Your task to perform on an android device: toggle data saver in the chrome app Image 0: 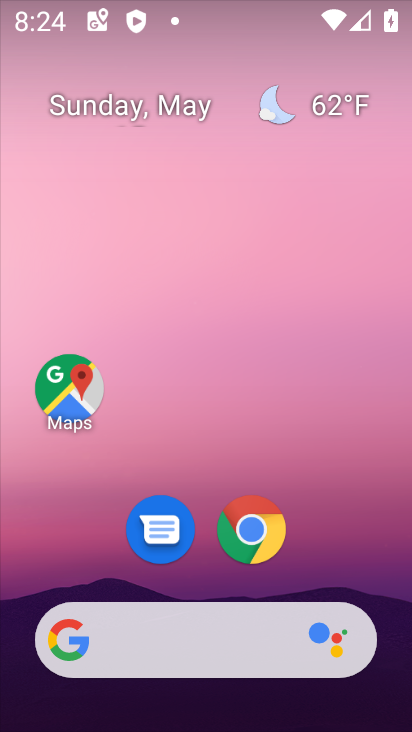
Step 0: drag from (350, 564) to (296, 171)
Your task to perform on an android device: toggle data saver in the chrome app Image 1: 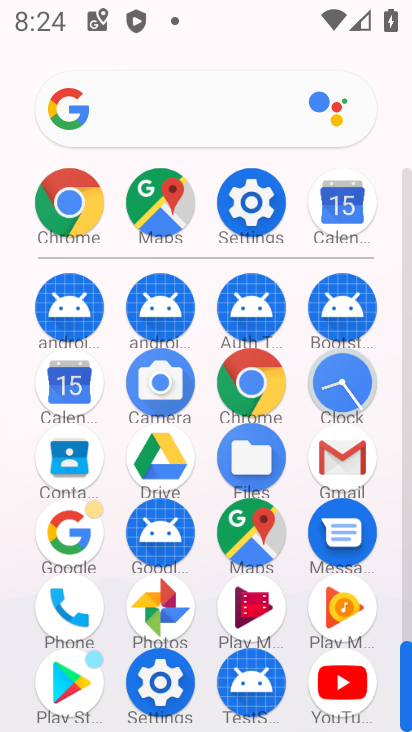
Step 1: click (260, 376)
Your task to perform on an android device: toggle data saver in the chrome app Image 2: 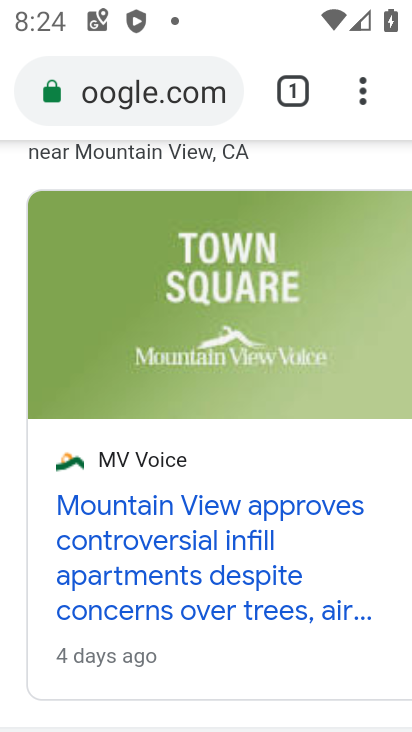
Step 2: drag from (369, 118) to (176, 515)
Your task to perform on an android device: toggle data saver in the chrome app Image 3: 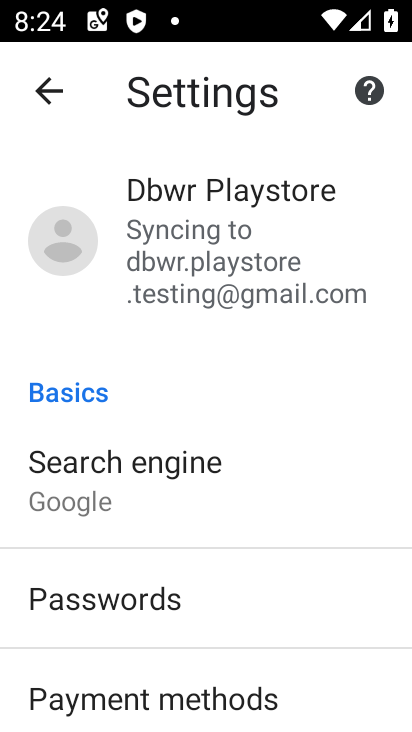
Step 3: drag from (210, 618) to (307, 145)
Your task to perform on an android device: toggle data saver in the chrome app Image 4: 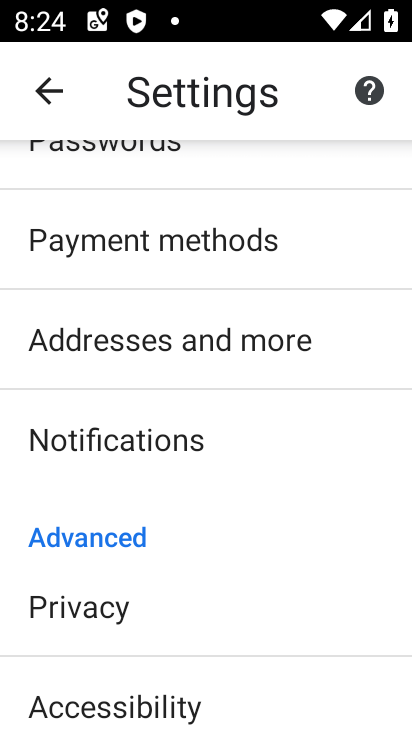
Step 4: drag from (268, 644) to (337, 297)
Your task to perform on an android device: toggle data saver in the chrome app Image 5: 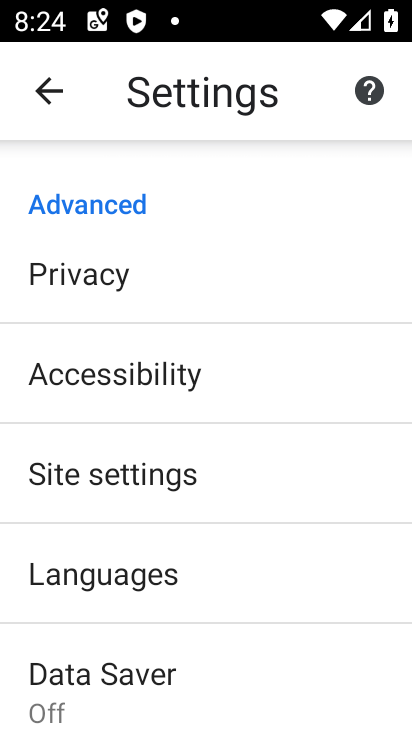
Step 5: click (159, 670)
Your task to perform on an android device: toggle data saver in the chrome app Image 6: 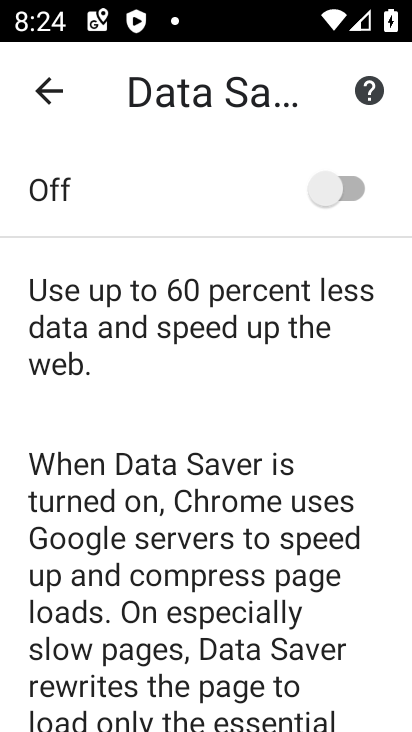
Step 6: drag from (290, 647) to (300, 388)
Your task to perform on an android device: toggle data saver in the chrome app Image 7: 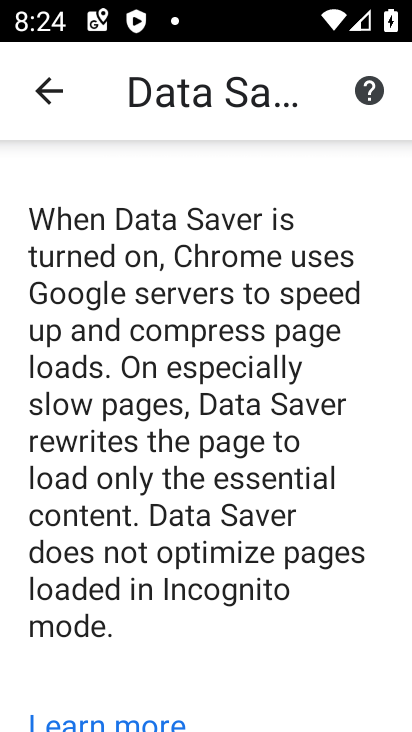
Step 7: drag from (281, 240) to (327, 560)
Your task to perform on an android device: toggle data saver in the chrome app Image 8: 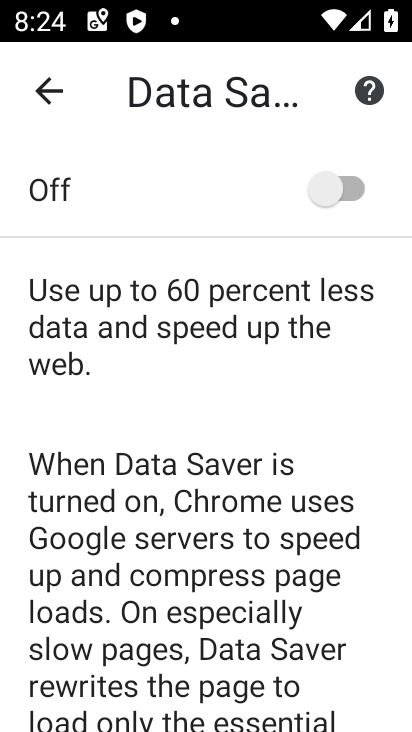
Step 8: click (358, 188)
Your task to perform on an android device: toggle data saver in the chrome app Image 9: 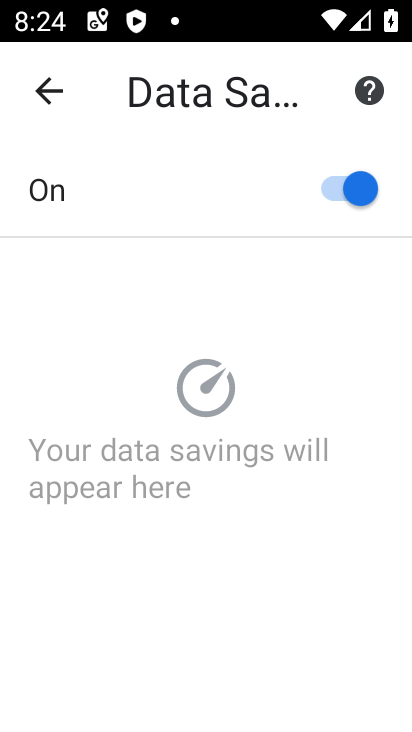
Step 9: task complete